Your task to perform on an android device: Open Wikipedia Image 0: 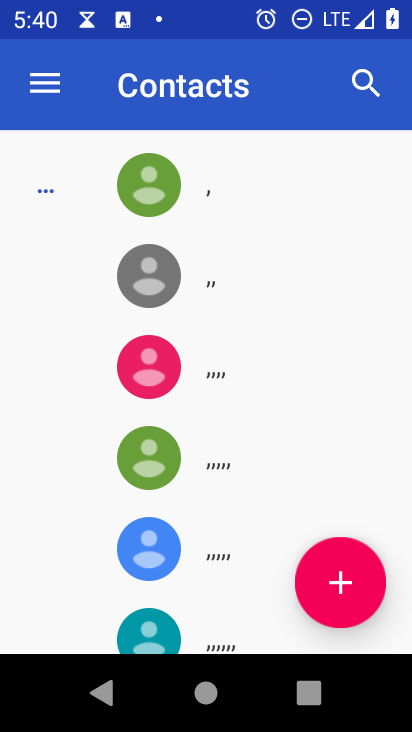
Step 0: press home button
Your task to perform on an android device: Open Wikipedia Image 1: 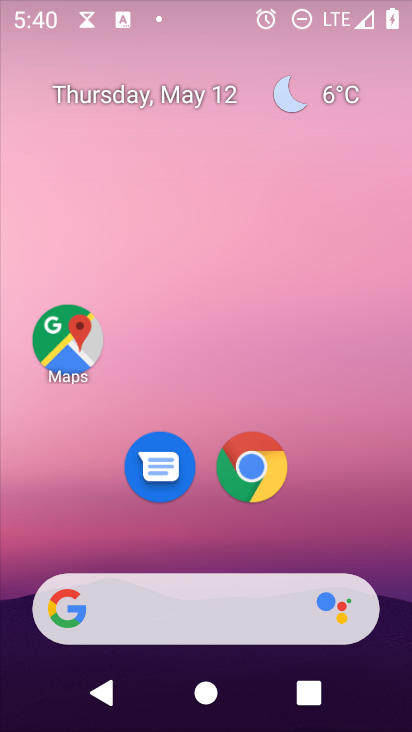
Step 1: drag from (165, 572) to (137, 37)
Your task to perform on an android device: Open Wikipedia Image 2: 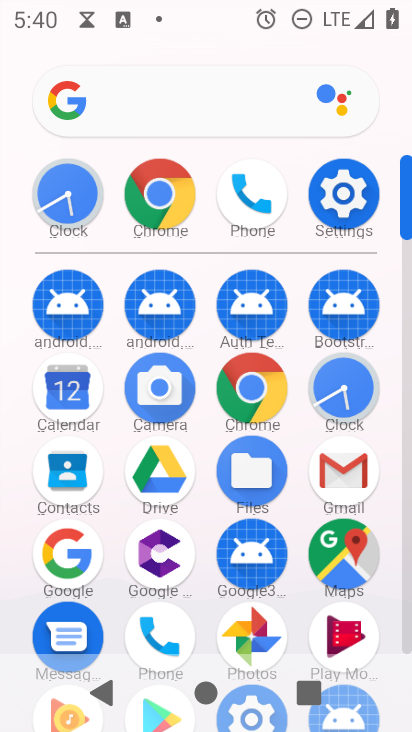
Step 2: click (249, 405)
Your task to perform on an android device: Open Wikipedia Image 3: 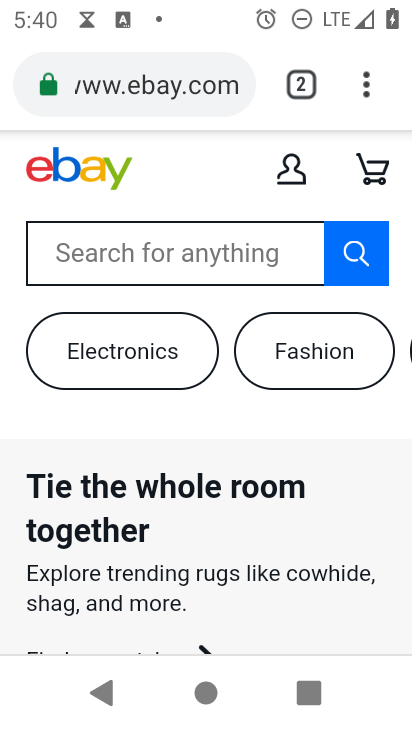
Step 3: click (193, 81)
Your task to perform on an android device: Open Wikipedia Image 4: 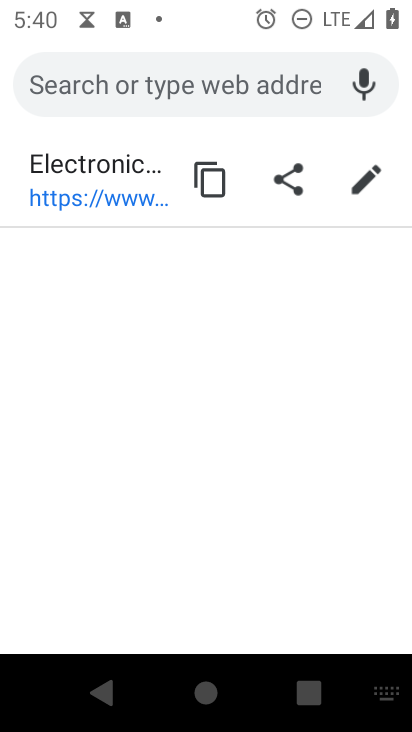
Step 4: type "wikipedia"
Your task to perform on an android device: Open Wikipedia Image 5: 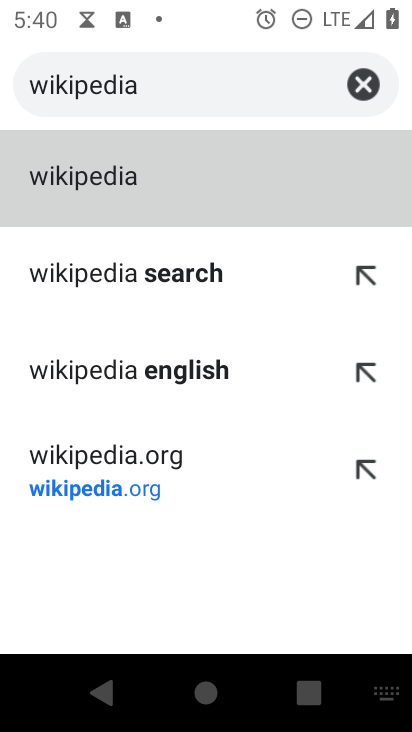
Step 5: click (197, 194)
Your task to perform on an android device: Open Wikipedia Image 6: 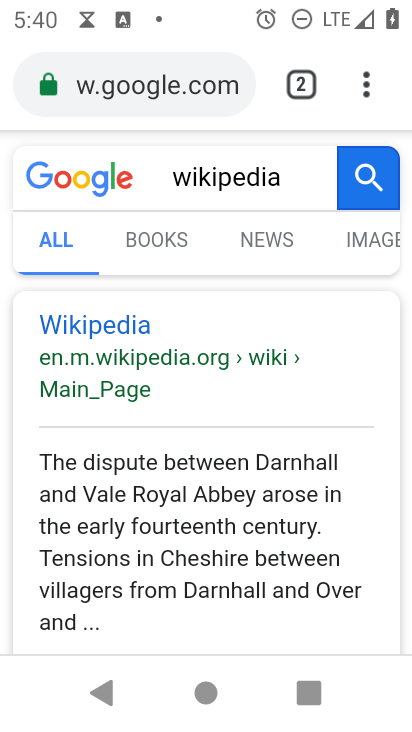
Step 6: task complete